Your task to perform on an android device: search for starred emails in the gmail app Image 0: 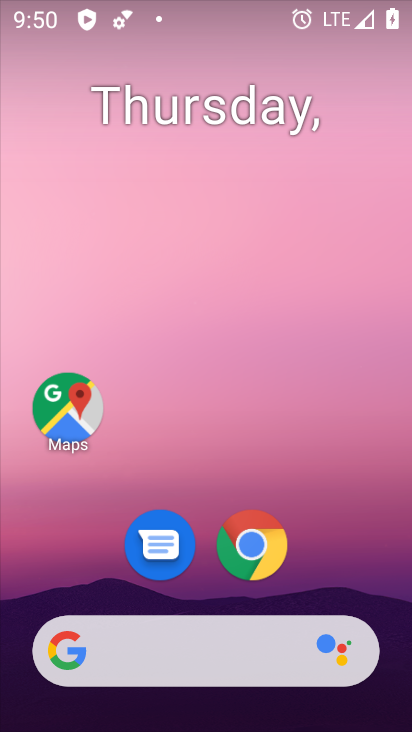
Step 0: drag from (328, 488) to (270, 44)
Your task to perform on an android device: search for starred emails in the gmail app Image 1: 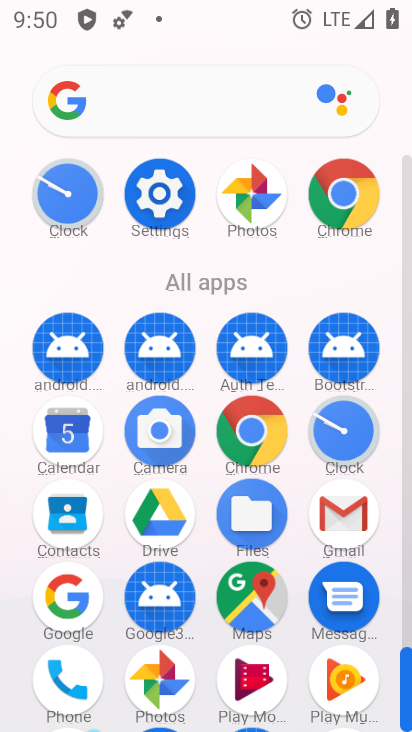
Step 1: click (340, 509)
Your task to perform on an android device: search for starred emails in the gmail app Image 2: 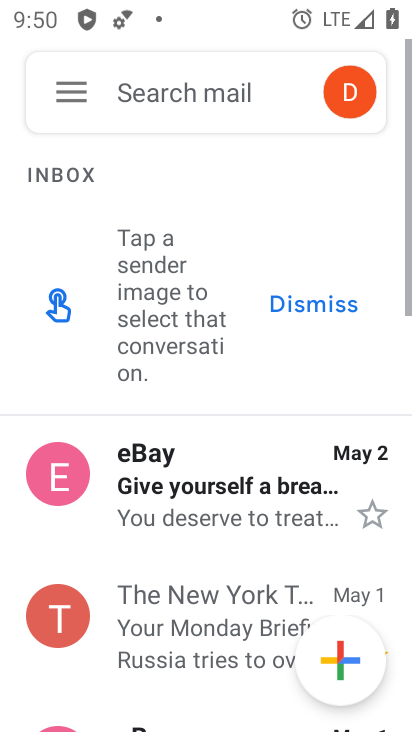
Step 2: click (74, 96)
Your task to perform on an android device: search for starred emails in the gmail app Image 3: 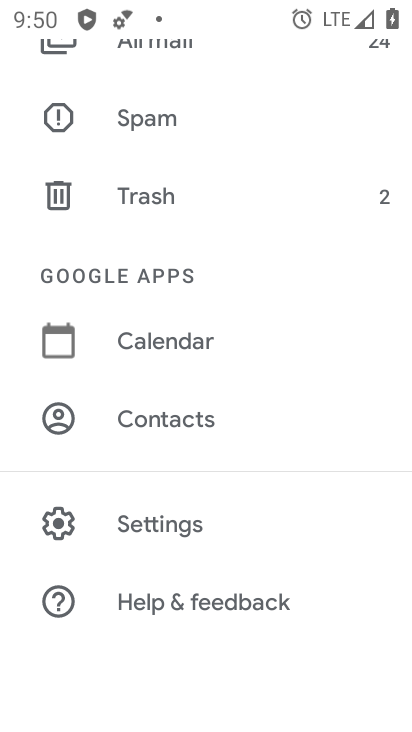
Step 3: drag from (197, 216) to (311, 723)
Your task to perform on an android device: search for starred emails in the gmail app Image 4: 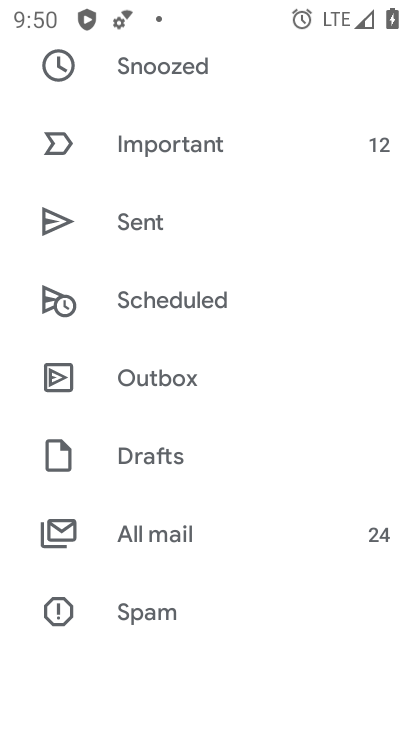
Step 4: drag from (252, 222) to (289, 573)
Your task to perform on an android device: search for starred emails in the gmail app Image 5: 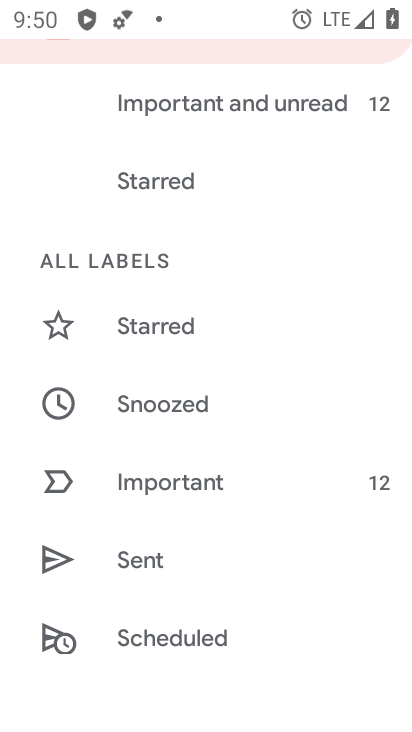
Step 5: click (149, 325)
Your task to perform on an android device: search for starred emails in the gmail app Image 6: 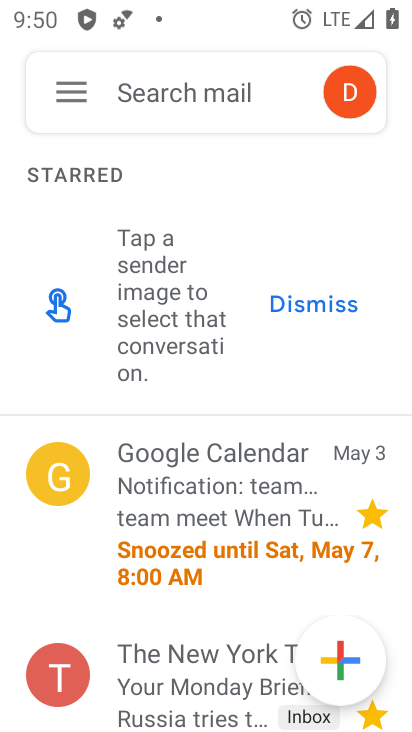
Step 6: task complete